Your task to perform on an android device: Open the calendar and show me this week's events? Image 0: 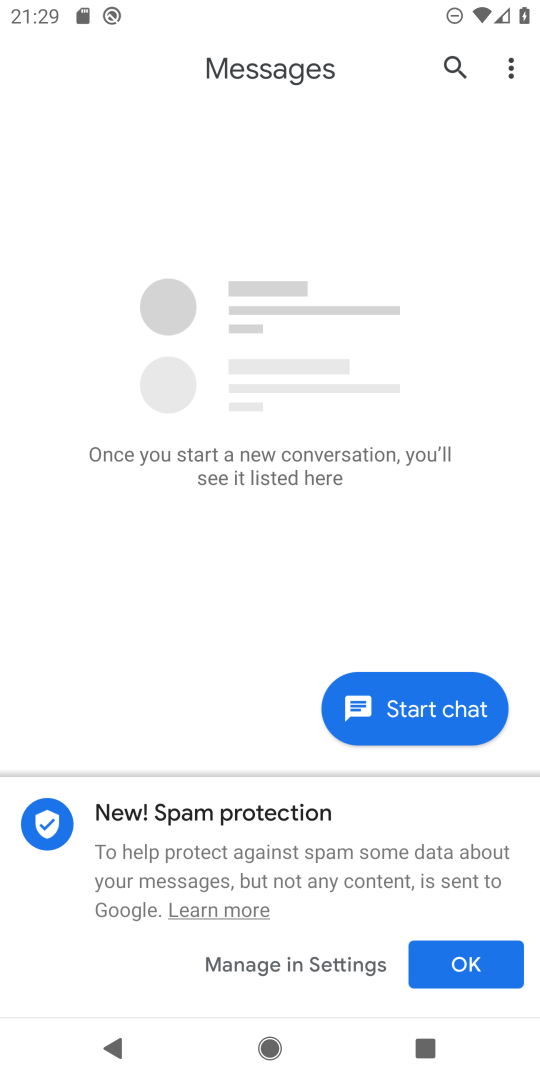
Step 0: press home button
Your task to perform on an android device: Open the calendar and show me this week's events? Image 1: 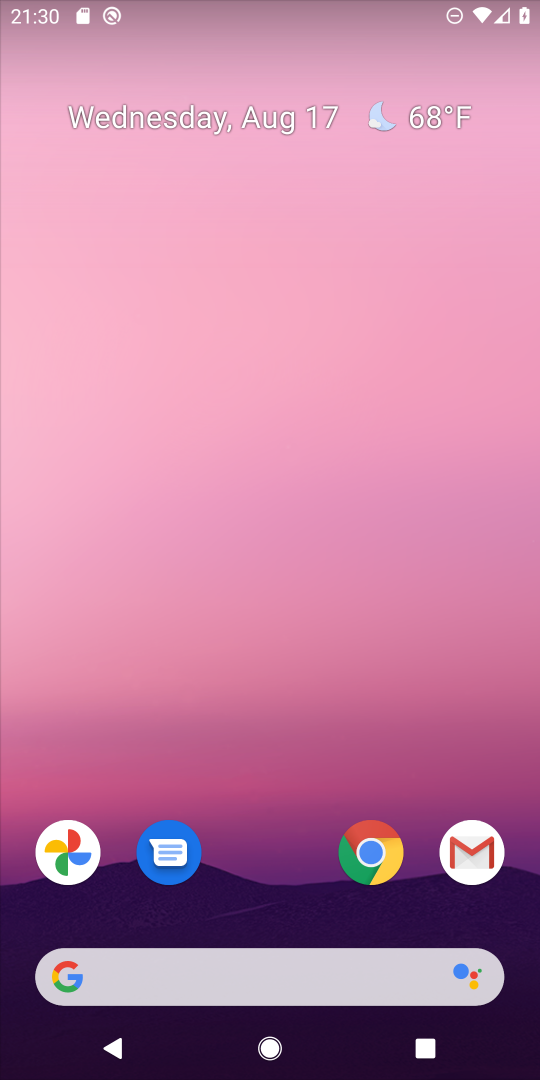
Step 1: drag from (276, 826) to (268, 257)
Your task to perform on an android device: Open the calendar and show me this week's events? Image 2: 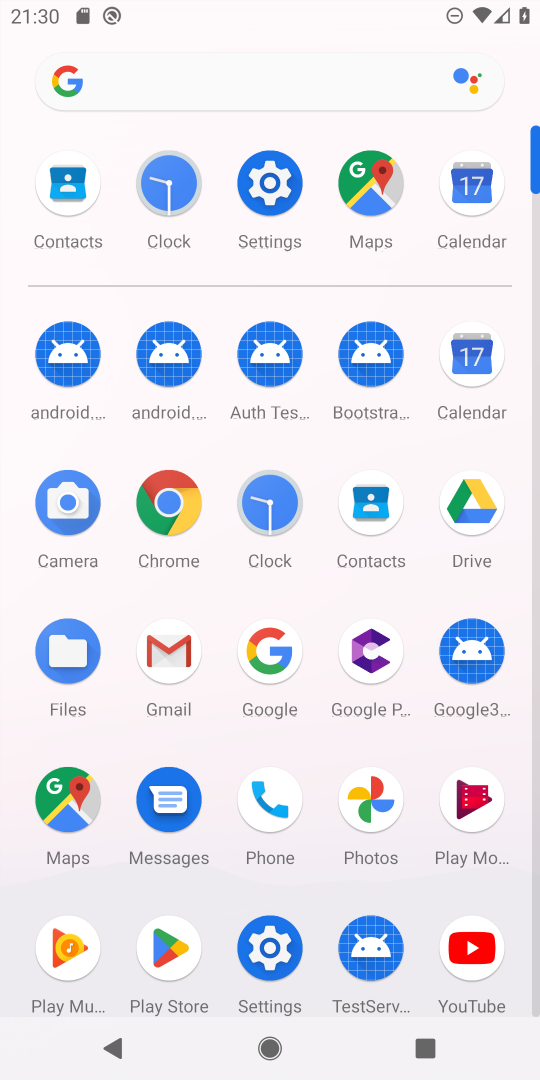
Step 2: click (471, 348)
Your task to perform on an android device: Open the calendar and show me this week's events? Image 3: 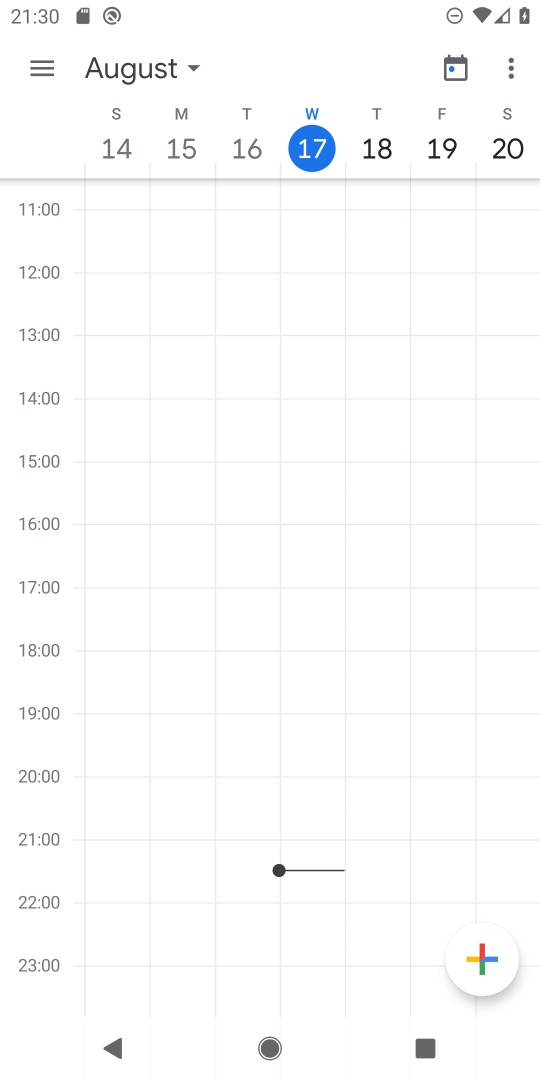
Step 3: task complete